Your task to perform on an android device: search for starred emails in the gmail app Image 0: 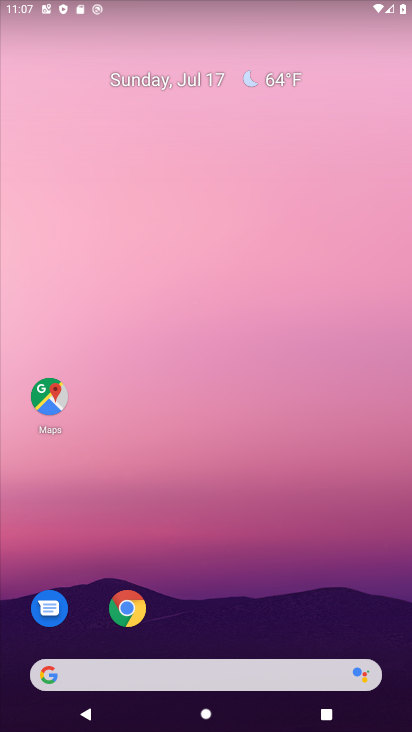
Step 0: drag from (326, 612) to (257, 15)
Your task to perform on an android device: search for starred emails in the gmail app Image 1: 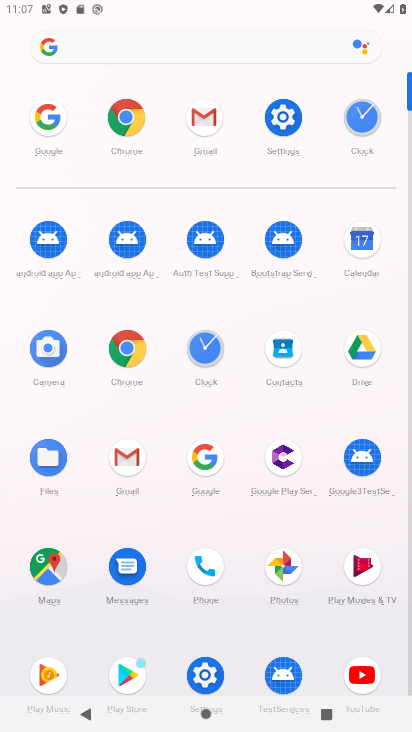
Step 1: click (113, 470)
Your task to perform on an android device: search for starred emails in the gmail app Image 2: 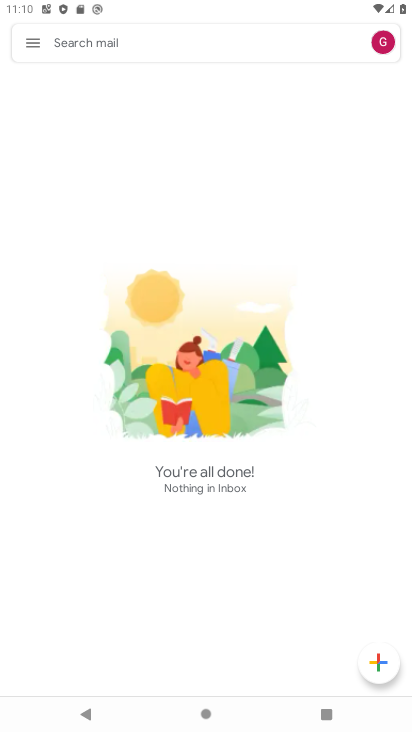
Step 2: click (27, 40)
Your task to perform on an android device: search for starred emails in the gmail app Image 3: 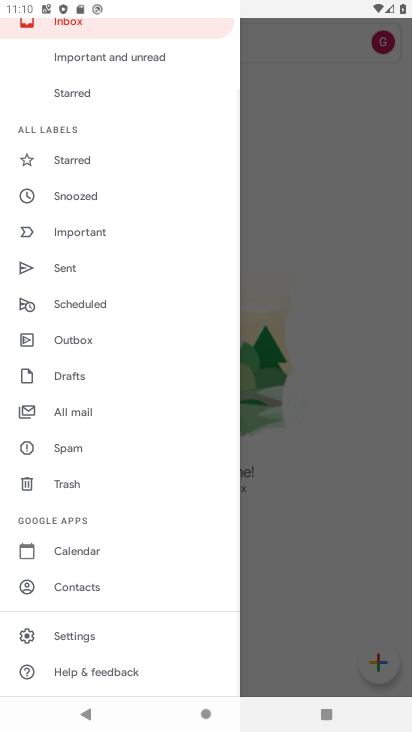
Step 3: click (85, 150)
Your task to perform on an android device: search for starred emails in the gmail app Image 4: 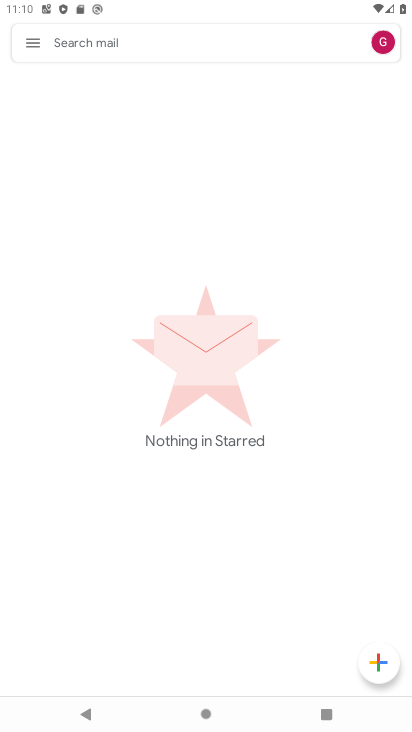
Step 4: task complete